Your task to perform on an android device: show emergency info Image 0: 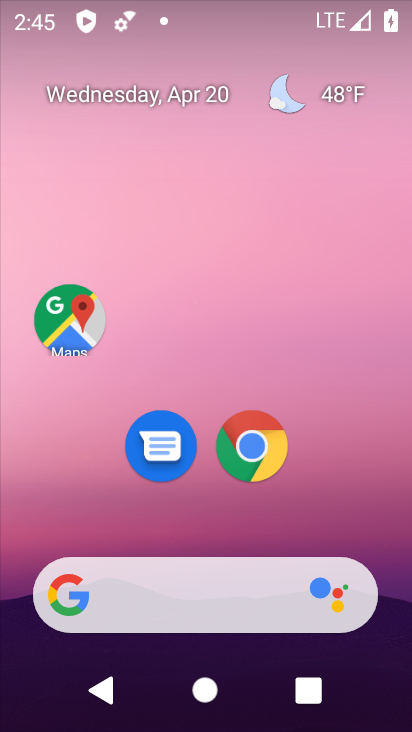
Step 0: drag from (386, 373) to (387, 10)
Your task to perform on an android device: show emergency info Image 1: 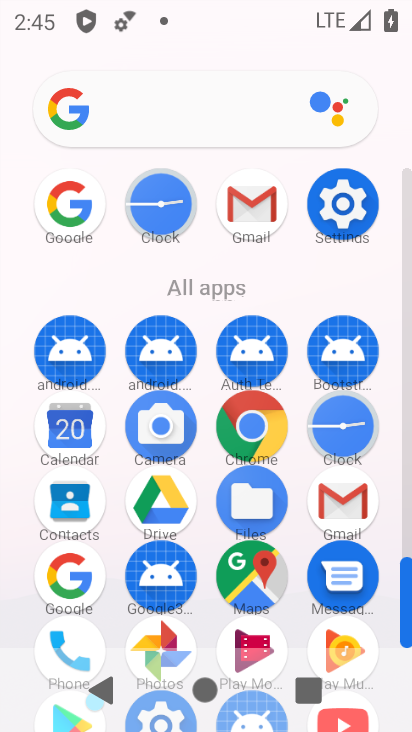
Step 1: click (338, 211)
Your task to perform on an android device: show emergency info Image 2: 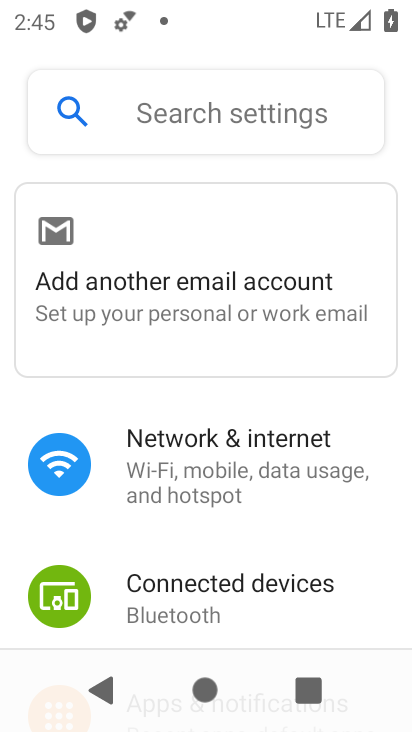
Step 2: drag from (228, 398) to (249, 152)
Your task to perform on an android device: show emergency info Image 3: 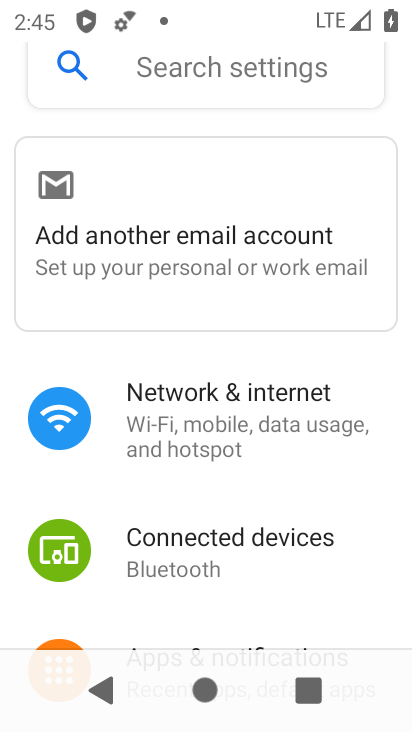
Step 3: drag from (167, 493) to (196, 185)
Your task to perform on an android device: show emergency info Image 4: 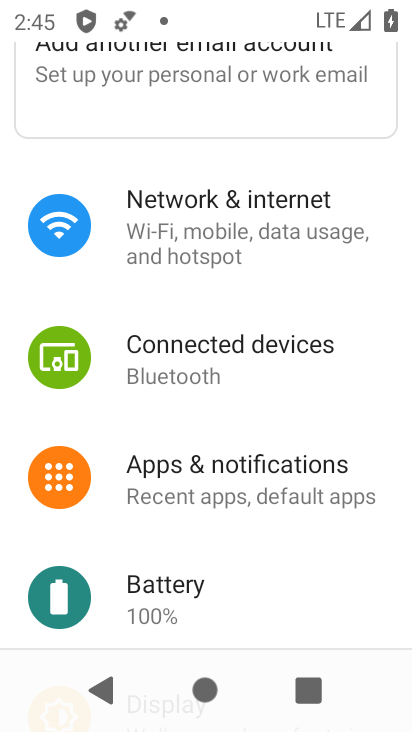
Step 4: drag from (196, 393) to (250, 109)
Your task to perform on an android device: show emergency info Image 5: 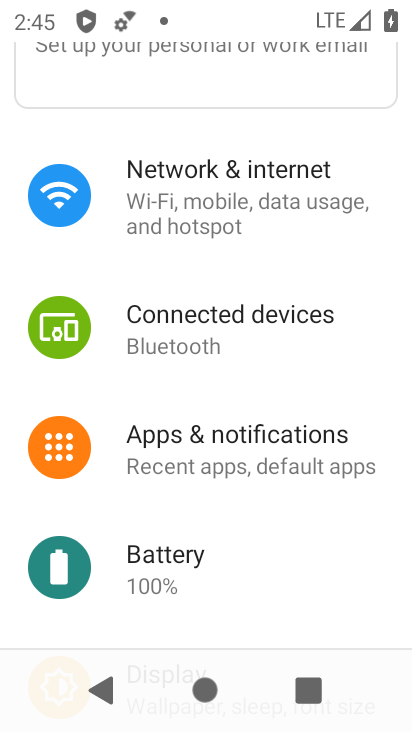
Step 5: drag from (188, 405) to (199, 168)
Your task to perform on an android device: show emergency info Image 6: 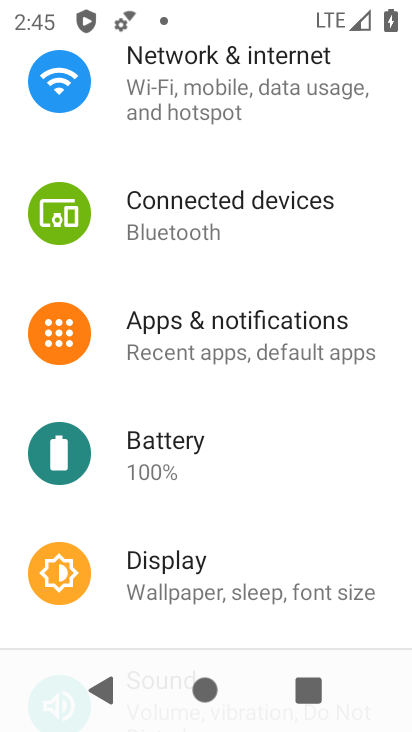
Step 6: drag from (204, 298) to (250, 89)
Your task to perform on an android device: show emergency info Image 7: 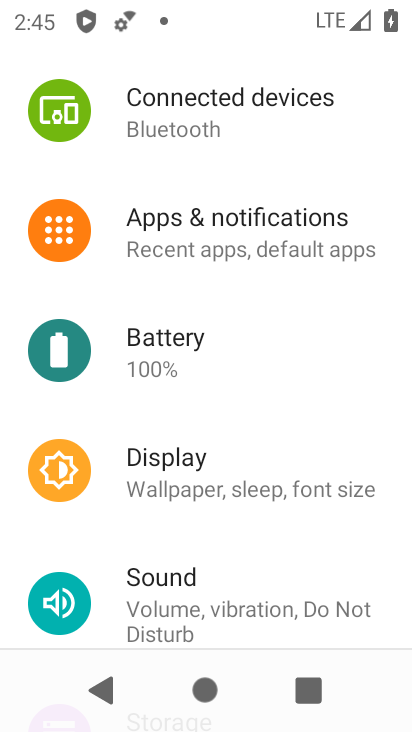
Step 7: drag from (177, 293) to (228, 77)
Your task to perform on an android device: show emergency info Image 8: 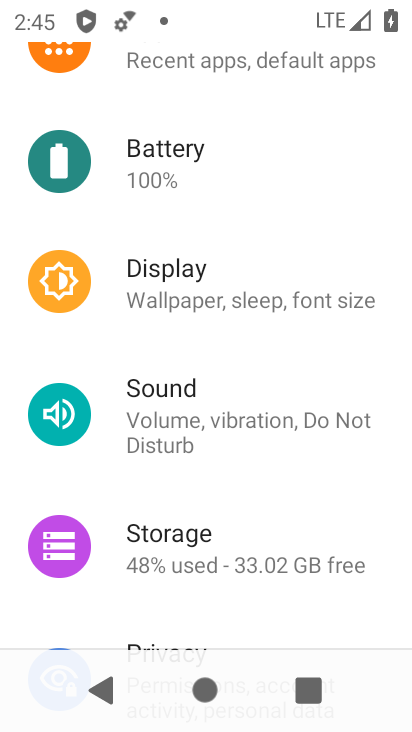
Step 8: drag from (169, 306) to (218, 111)
Your task to perform on an android device: show emergency info Image 9: 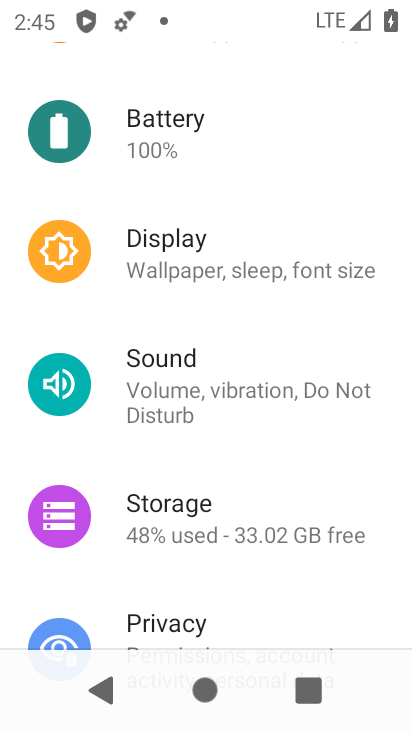
Step 9: drag from (172, 450) to (232, 121)
Your task to perform on an android device: show emergency info Image 10: 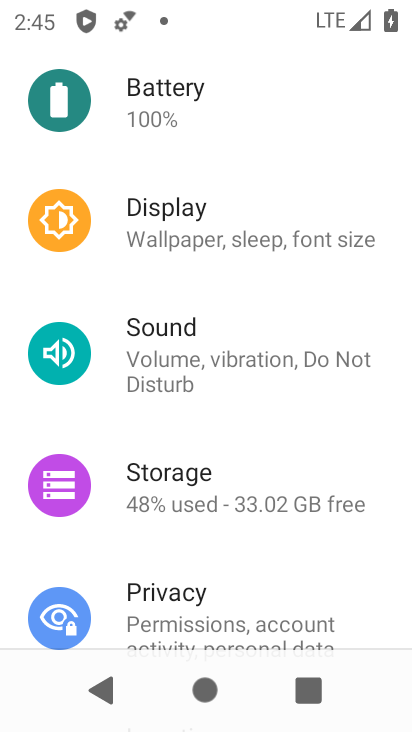
Step 10: drag from (198, 416) to (263, 118)
Your task to perform on an android device: show emergency info Image 11: 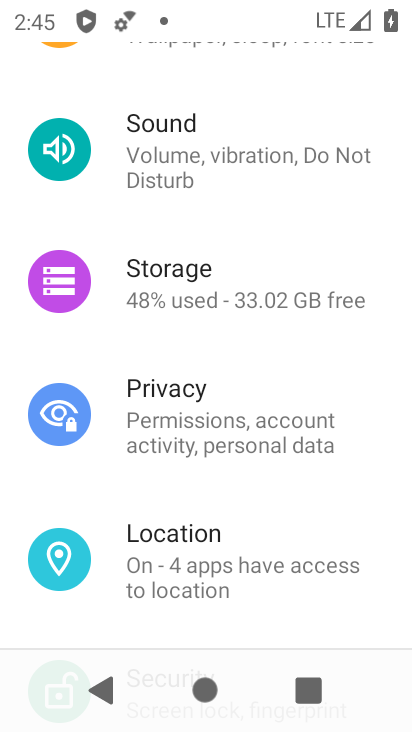
Step 11: drag from (167, 489) to (194, 256)
Your task to perform on an android device: show emergency info Image 12: 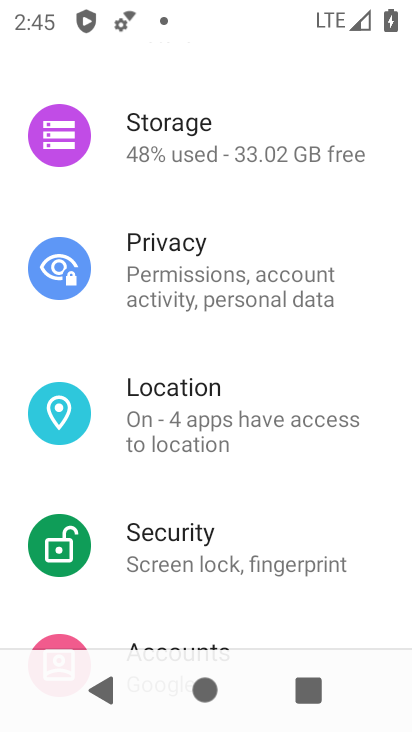
Step 12: drag from (172, 369) to (229, 108)
Your task to perform on an android device: show emergency info Image 13: 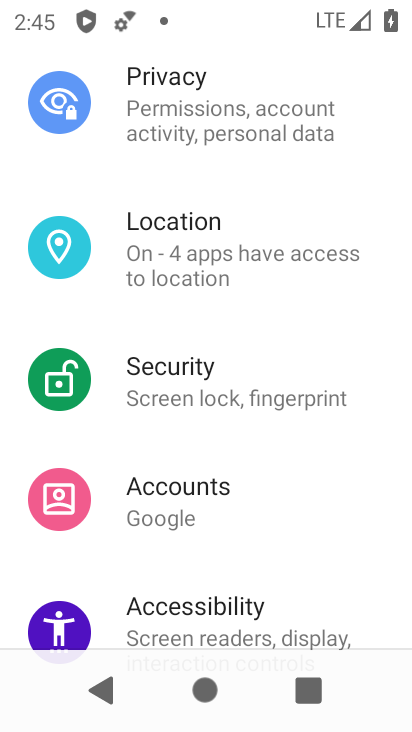
Step 13: drag from (192, 320) to (245, 95)
Your task to perform on an android device: show emergency info Image 14: 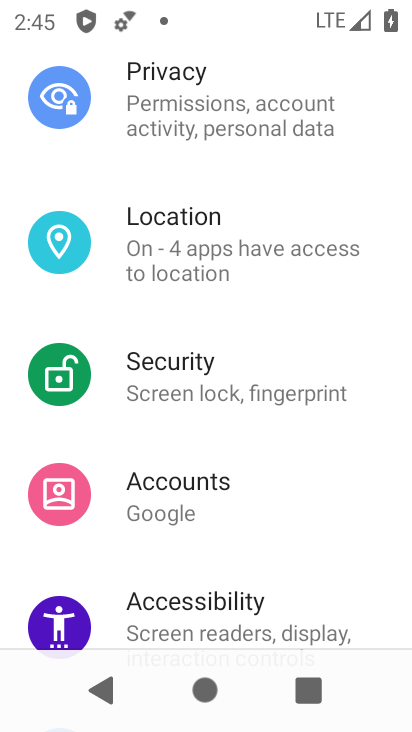
Step 14: drag from (210, 304) to (284, 26)
Your task to perform on an android device: show emergency info Image 15: 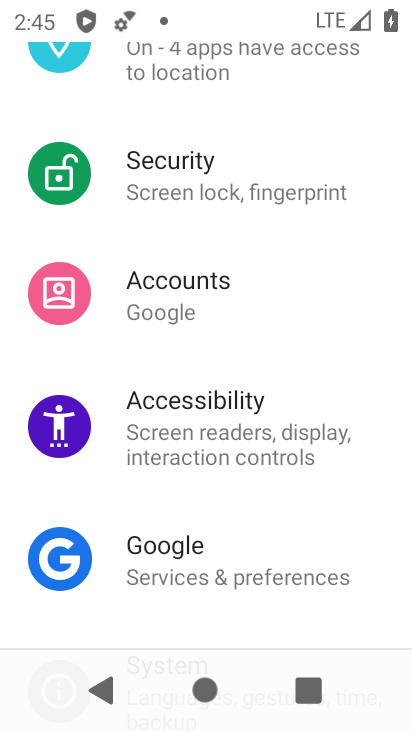
Step 15: drag from (191, 371) to (260, 77)
Your task to perform on an android device: show emergency info Image 16: 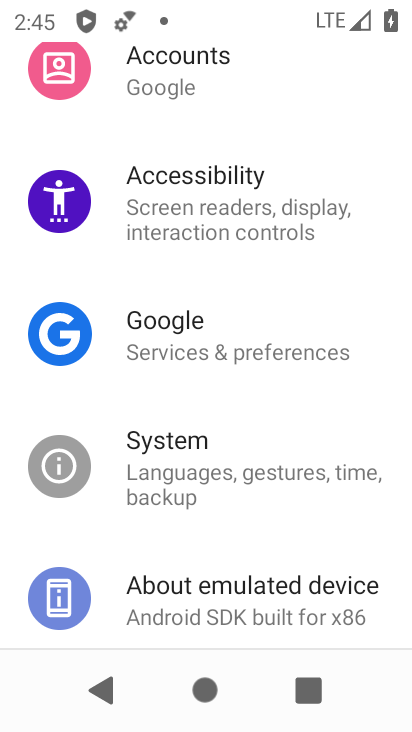
Step 16: click (261, 595)
Your task to perform on an android device: show emergency info Image 17: 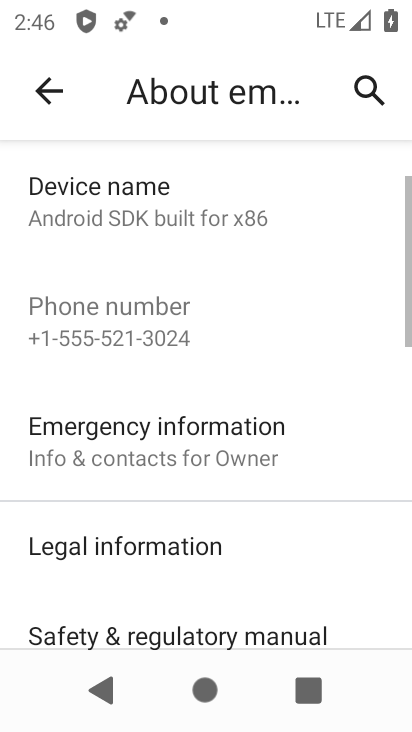
Step 17: click (198, 448)
Your task to perform on an android device: show emergency info Image 18: 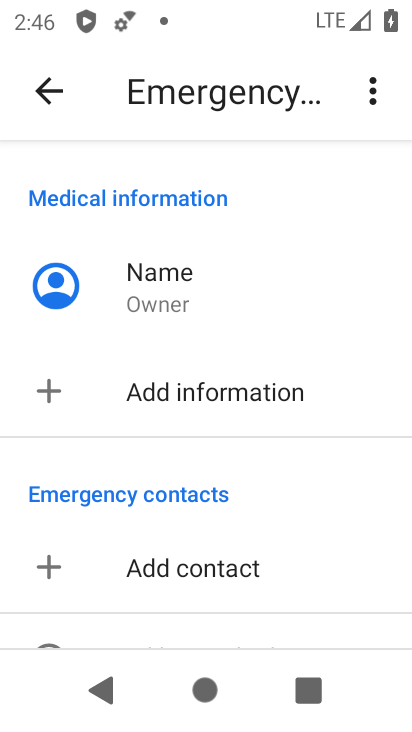
Step 18: task complete